Your task to perform on an android device: add a contact in the contacts app Image 0: 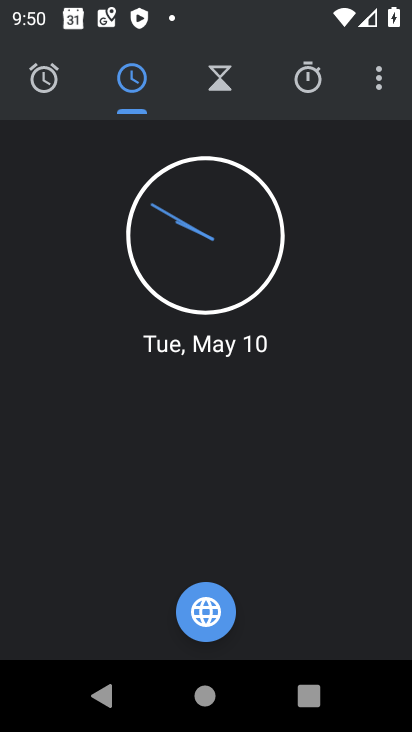
Step 0: press home button
Your task to perform on an android device: add a contact in the contacts app Image 1: 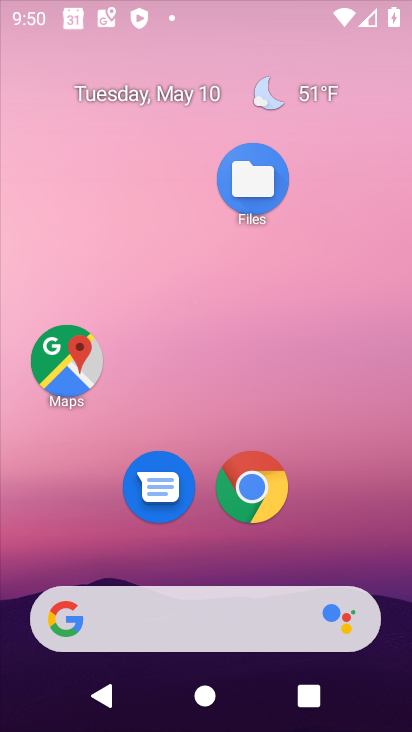
Step 1: drag from (256, 398) to (291, 115)
Your task to perform on an android device: add a contact in the contacts app Image 2: 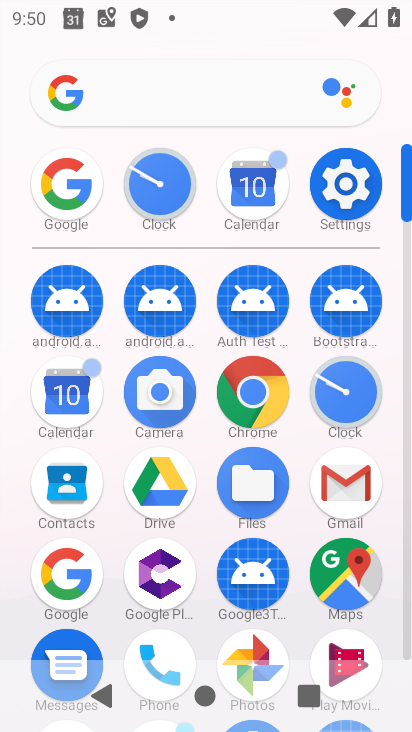
Step 2: click (49, 493)
Your task to perform on an android device: add a contact in the contacts app Image 3: 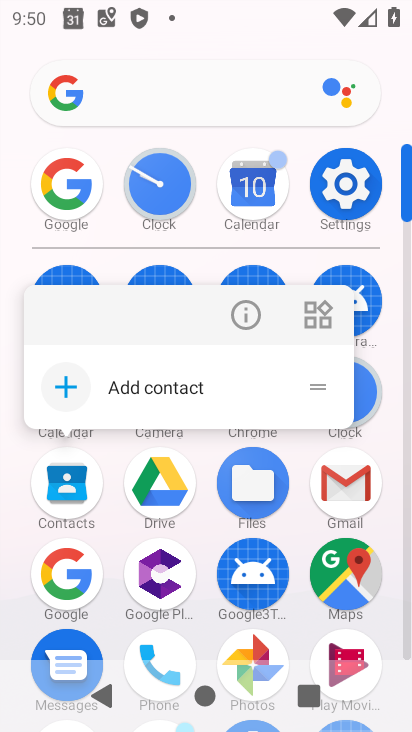
Step 3: click (71, 489)
Your task to perform on an android device: add a contact in the contacts app Image 4: 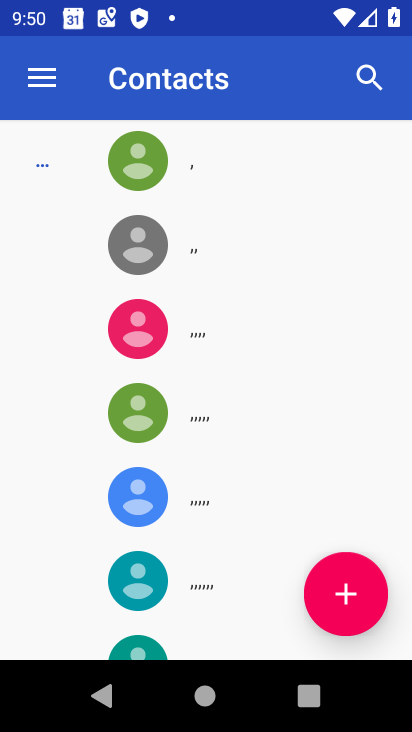
Step 4: click (346, 592)
Your task to perform on an android device: add a contact in the contacts app Image 5: 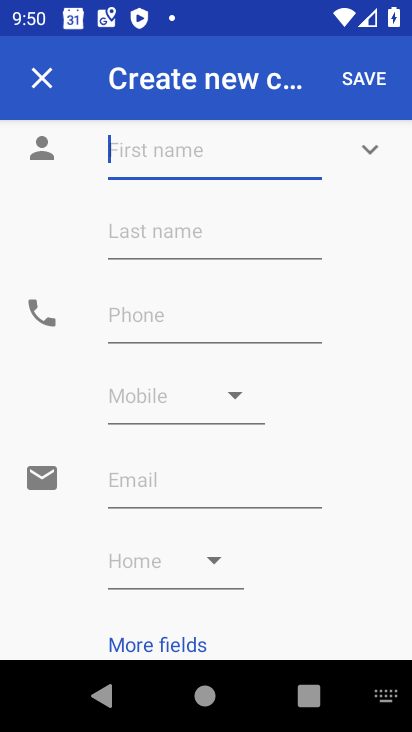
Step 5: type "teq"
Your task to perform on an android device: add a contact in the contacts app Image 6: 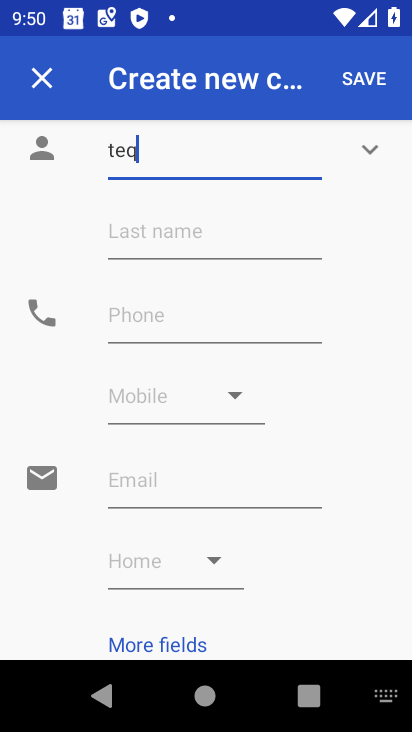
Step 6: click (359, 86)
Your task to perform on an android device: add a contact in the contacts app Image 7: 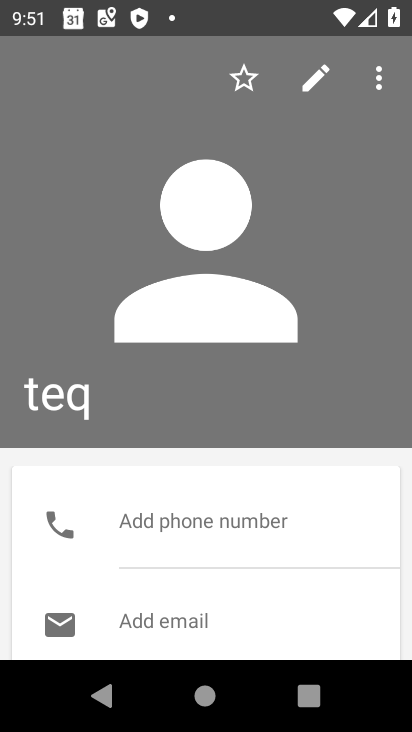
Step 7: task complete